Your task to perform on an android device: install app "PUBG MOBILE" Image 0: 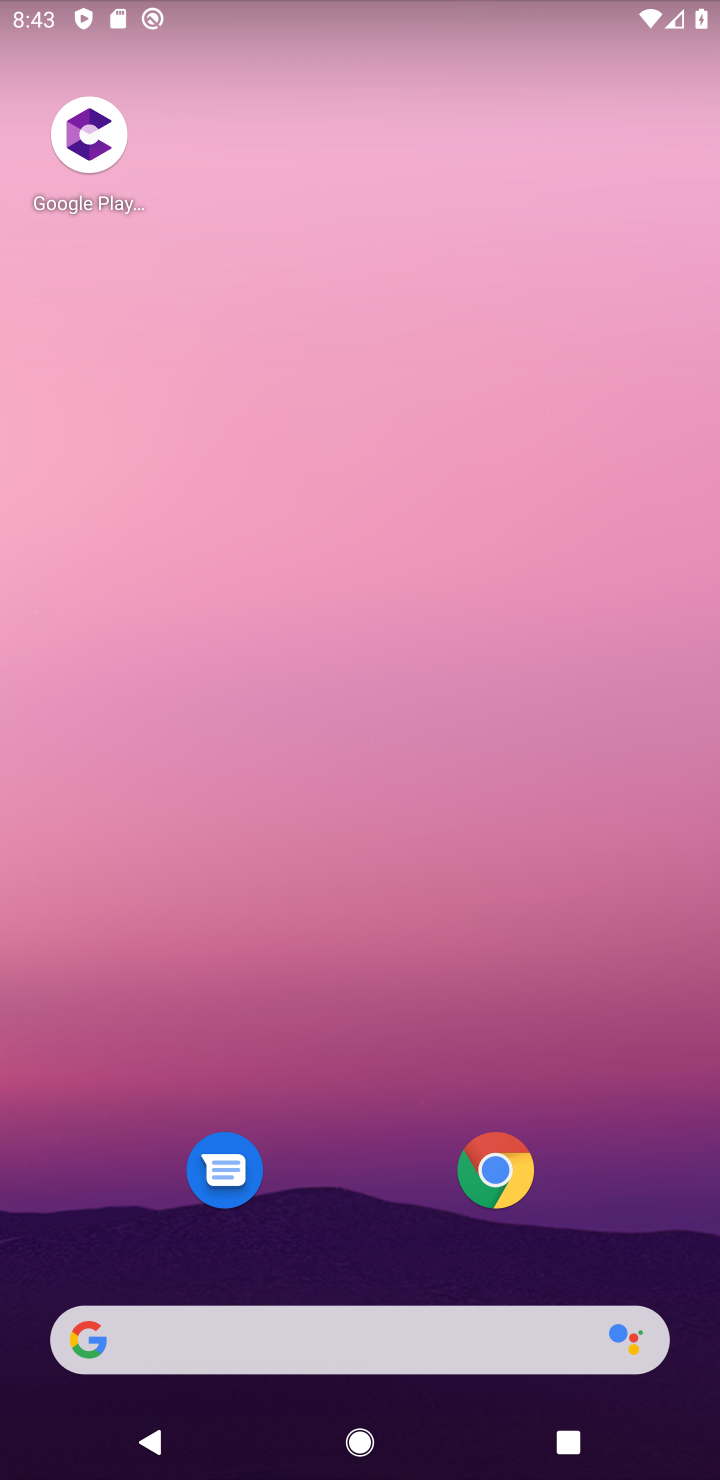
Step 0: drag from (649, 1249) to (462, 115)
Your task to perform on an android device: install app "PUBG MOBILE" Image 1: 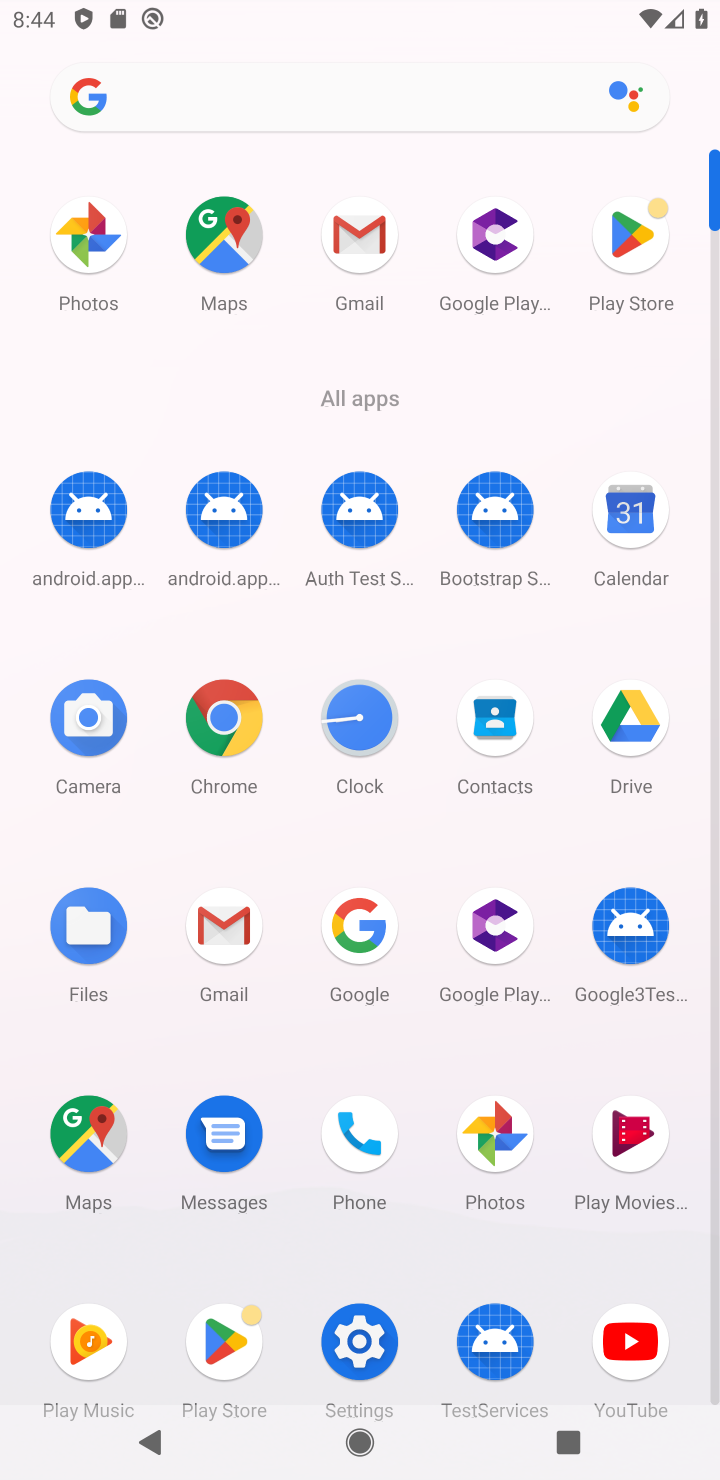
Step 1: click (221, 1353)
Your task to perform on an android device: install app "PUBG MOBILE" Image 2: 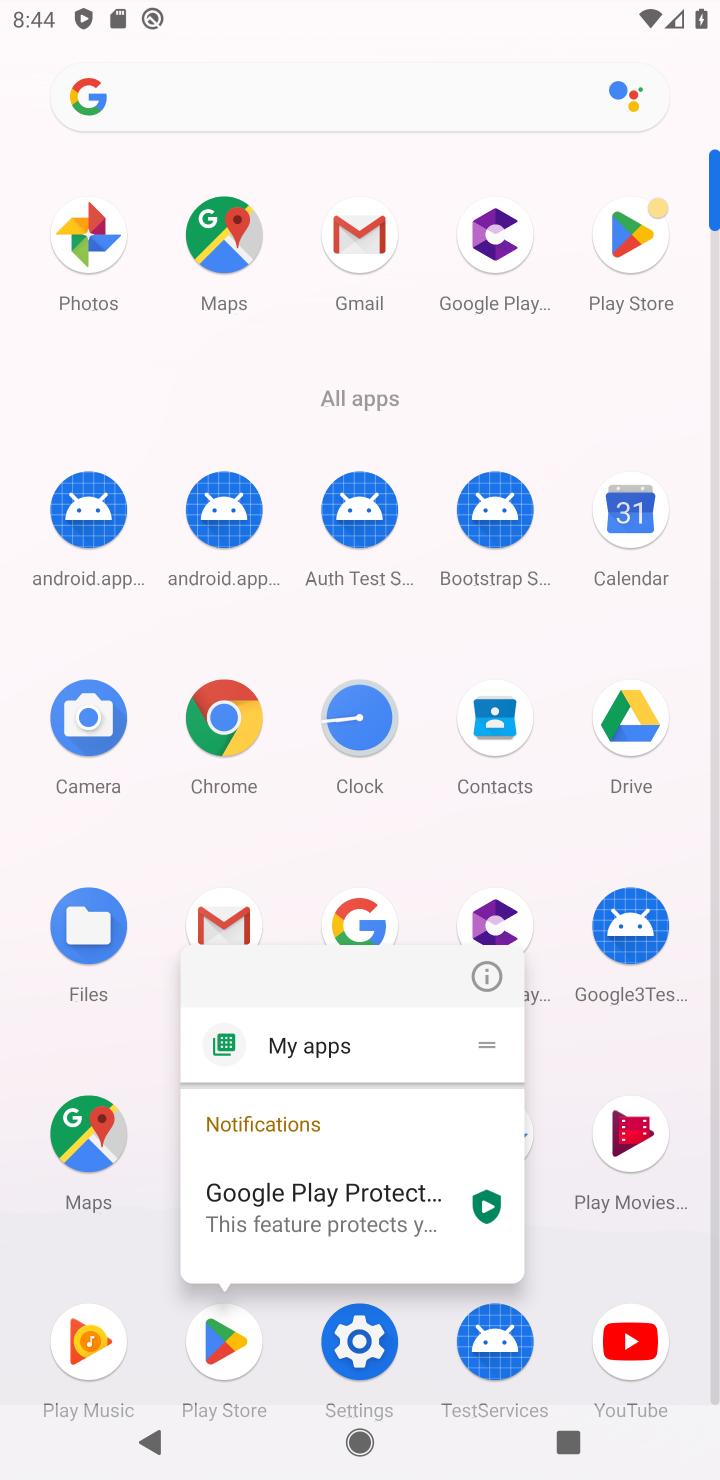
Step 2: click (221, 1353)
Your task to perform on an android device: install app "PUBG MOBILE" Image 3: 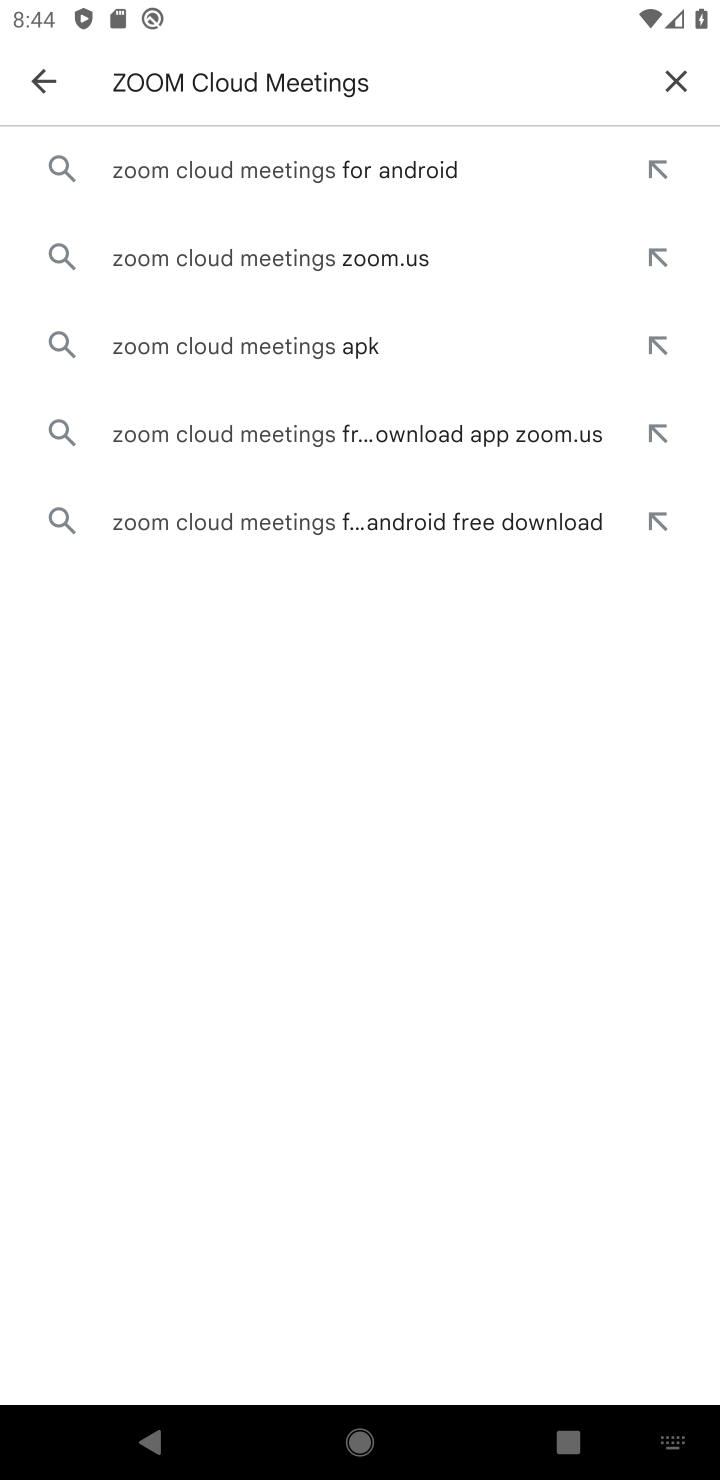
Step 3: press back button
Your task to perform on an android device: install app "PUBG MOBILE" Image 4: 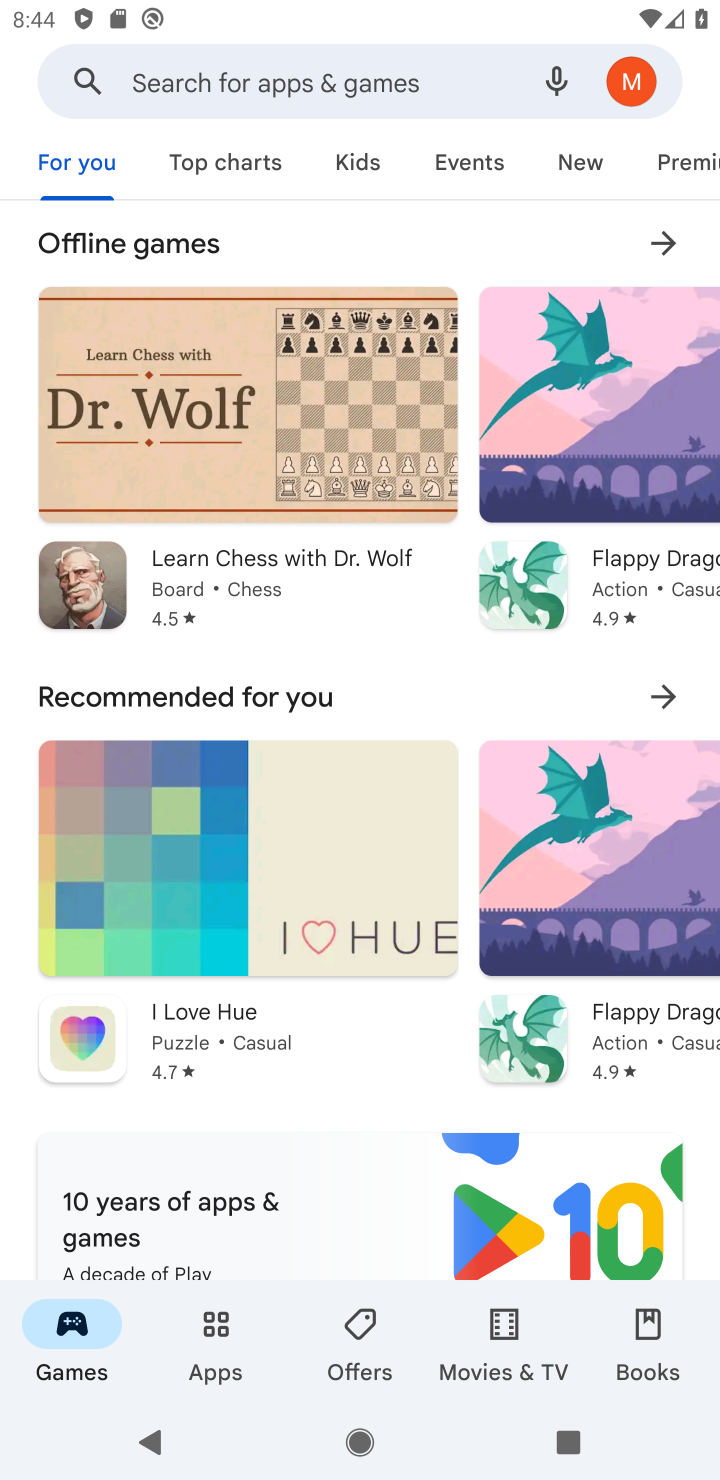
Step 4: click (304, 65)
Your task to perform on an android device: install app "PUBG MOBILE" Image 5: 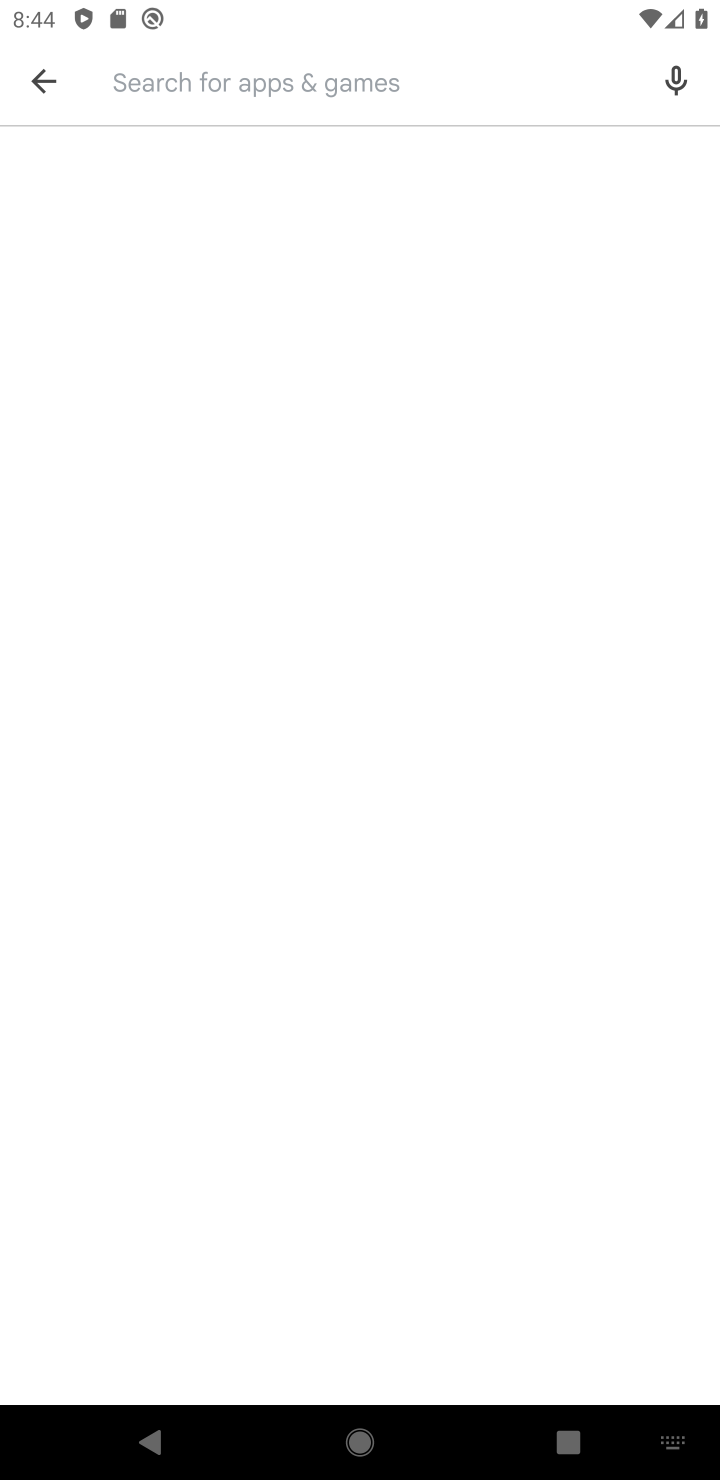
Step 5: type "PUBG MOBILE"
Your task to perform on an android device: install app "PUBG MOBILE" Image 6: 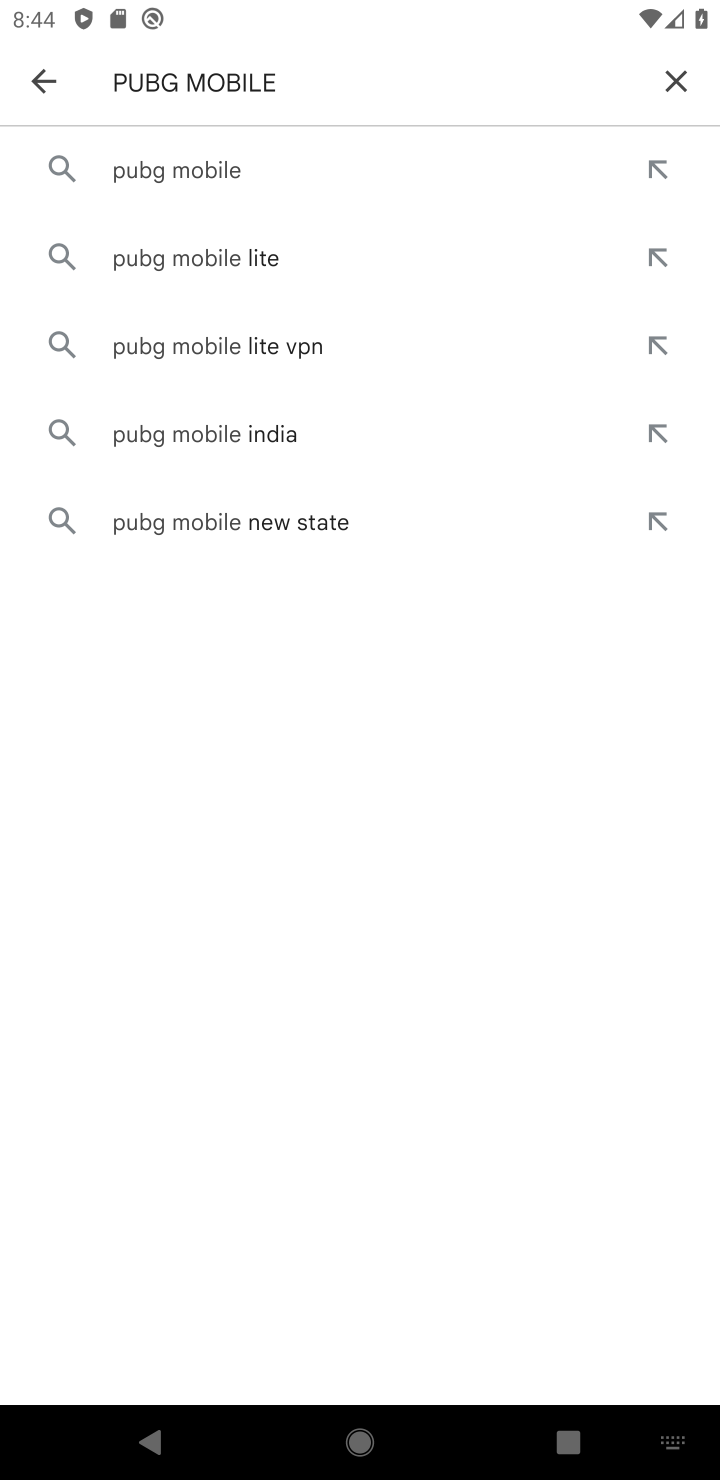
Step 6: click (207, 161)
Your task to perform on an android device: install app "PUBG MOBILE" Image 7: 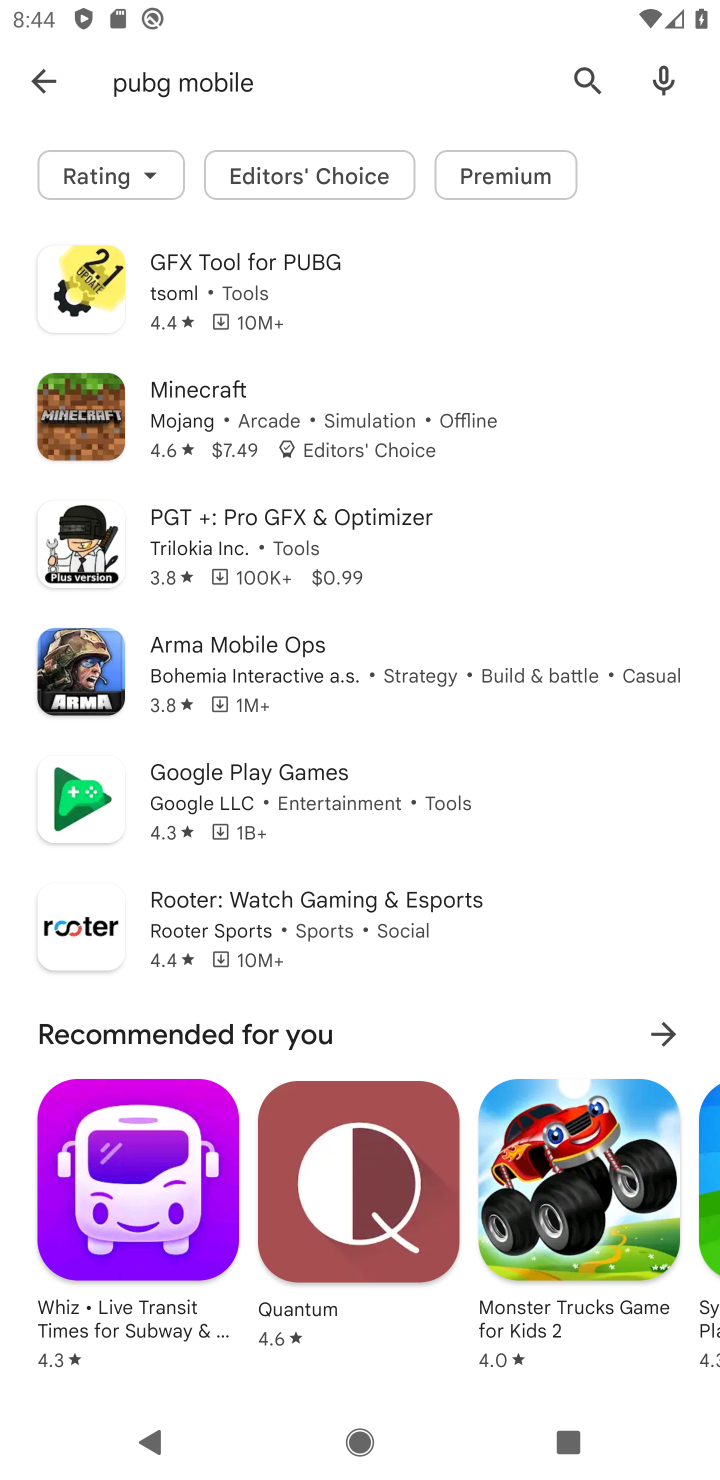
Step 7: task complete